Your task to perform on an android device: turn on priority inbox in the gmail app Image 0: 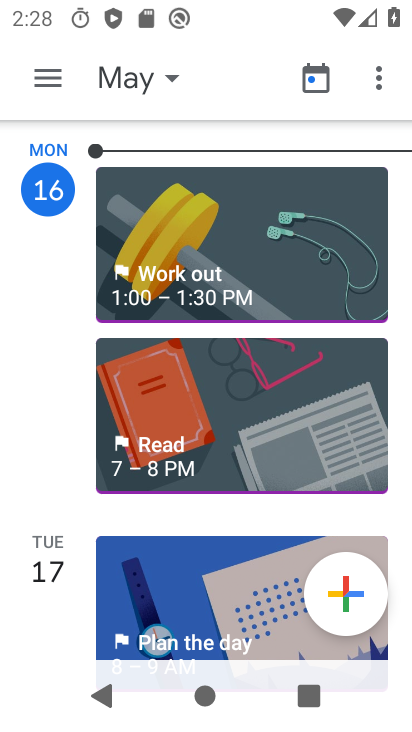
Step 0: press home button
Your task to perform on an android device: turn on priority inbox in the gmail app Image 1: 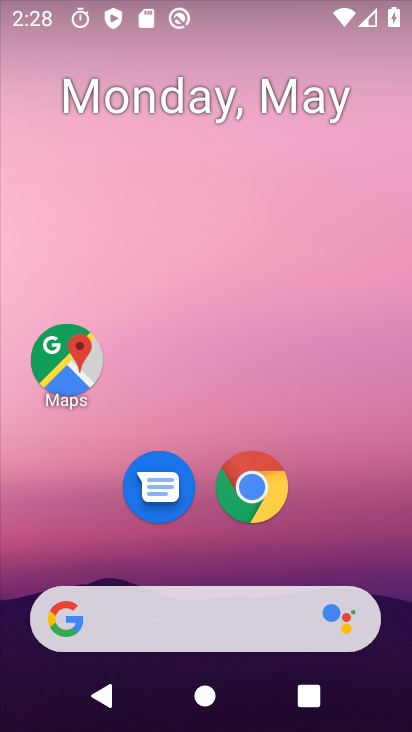
Step 1: drag from (210, 502) to (308, 90)
Your task to perform on an android device: turn on priority inbox in the gmail app Image 2: 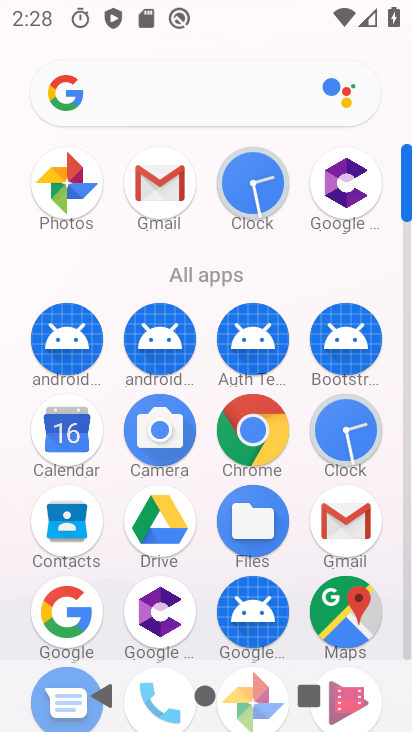
Step 2: click (352, 513)
Your task to perform on an android device: turn on priority inbox in the gmail app Image 3: 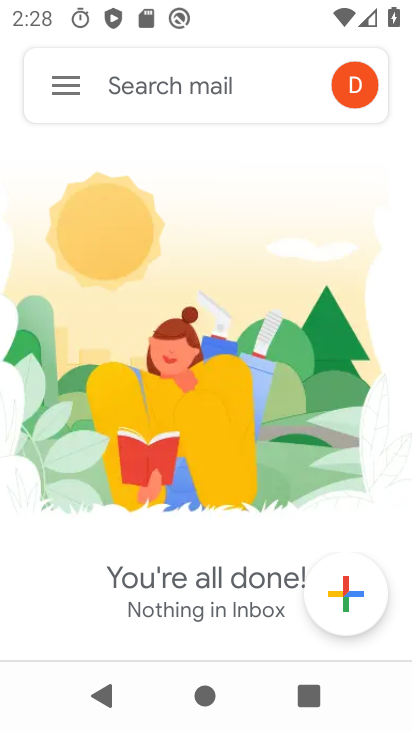
Step 3: click (71, 80)
Your task to perform on an android device: turn on priority inbox in the gmail app Image 4: 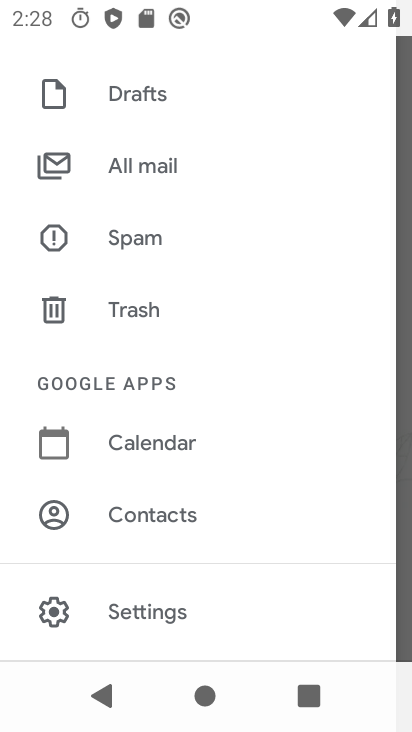
Step 4: click (125, 610)
Your task to perform on an android device: turn on priority inbox in the gmail app Image 5: 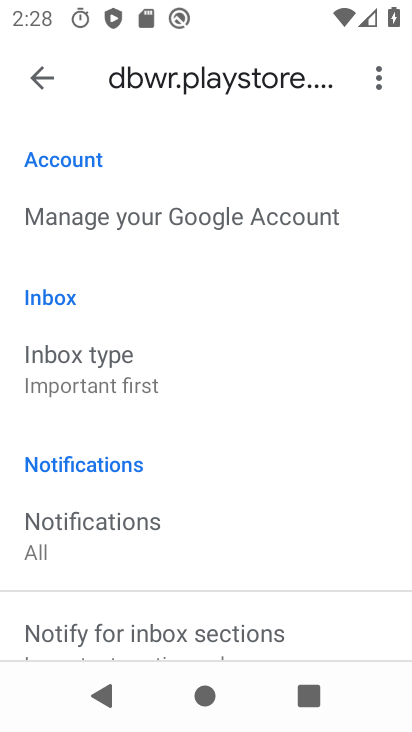
Step 5: click (107, 376)
Your task to perform on an android device: turn on priority inbox in the gmail app Image 6: 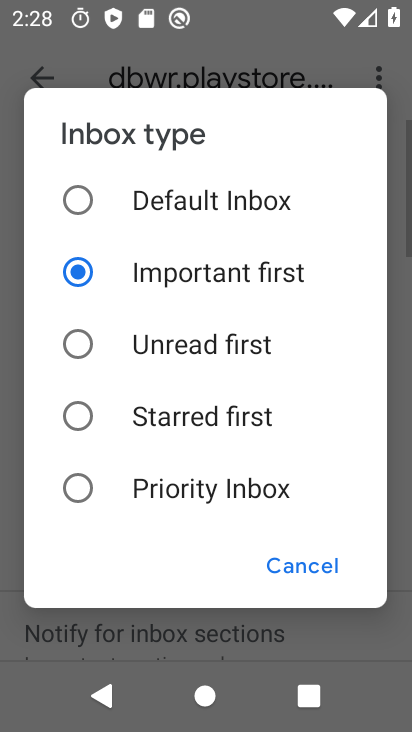
Step 6: click (122, 483)
Your task to perform on an android device: turn on priority inbox in the gmail app Image 7: 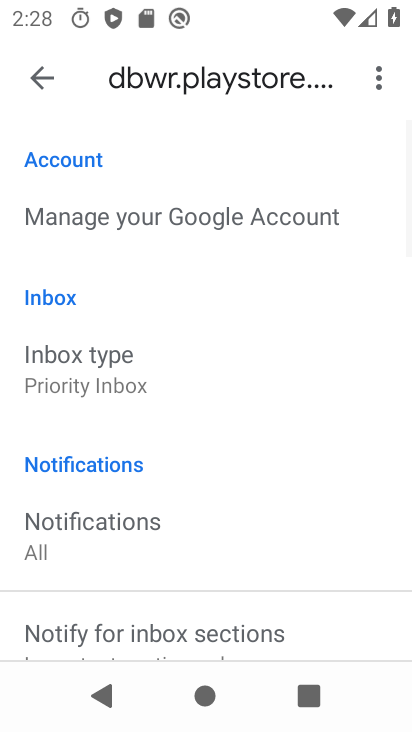
Step 7: task complete